Your task to perform on an android device: turn off improve location accuracy Image 0: 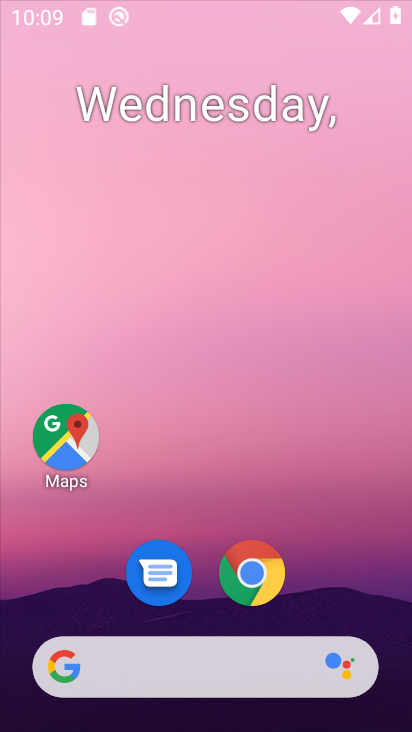
Step 0: click (318, 29)
Your task to perform on an android device: turn off improve location accuracy Image 1: 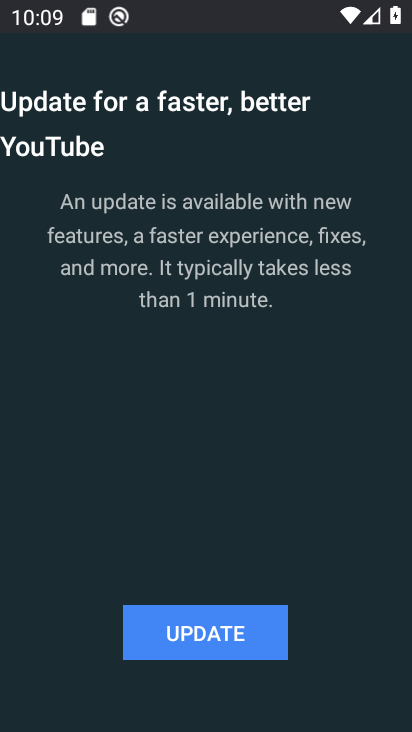
Step 1: press home button
Your task to perform on an android device: turn off improve location accuracy Image 2: 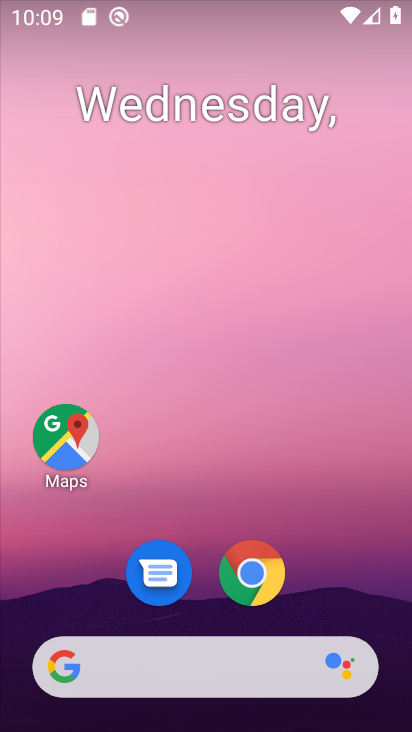
Step 2: drag from (230, 578) to (286, 13)
Your task to perform on an android device: turn off improve location accuracy Image 3: 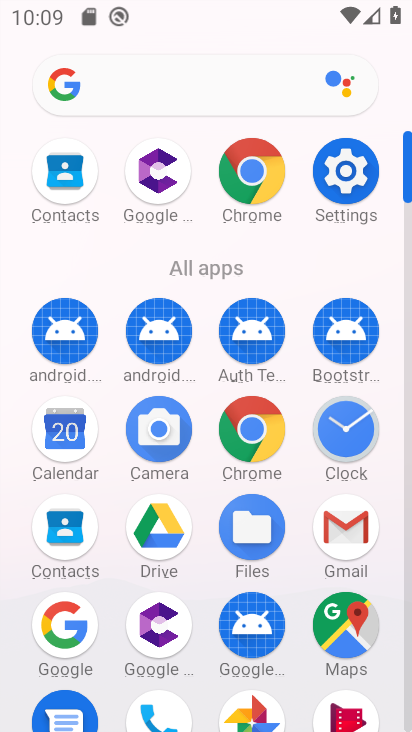
Step 3: click (346, 178)
Your task to perform on an android device: turn off improve location accuracy Image 4: 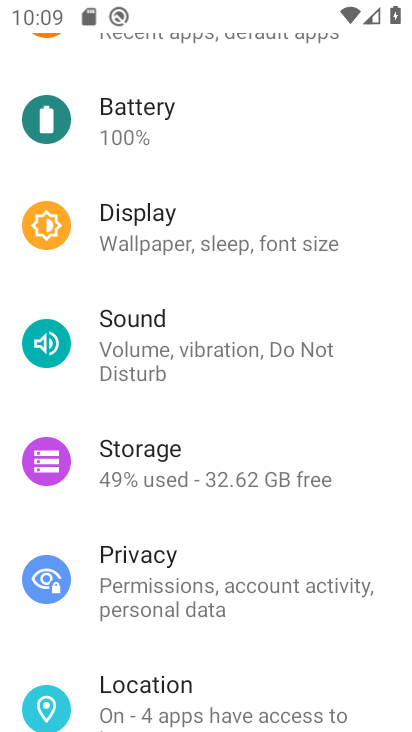
Step 4: click (167, 684)
Your task to perform on an android device: turn off improve location accuracy Image 5: 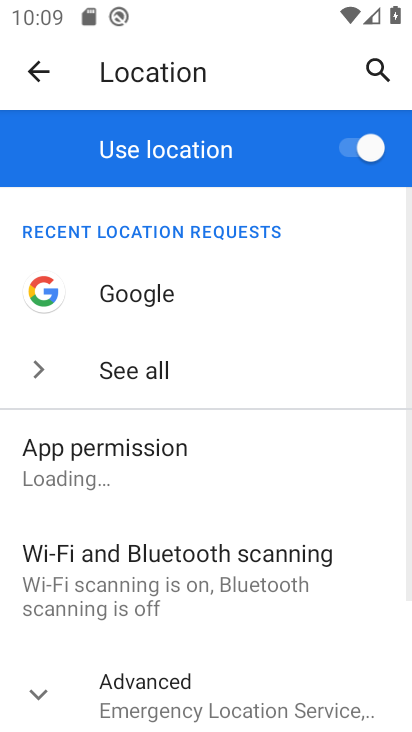
Step 5: drag from (207, 661) to (302, 175)
Your task to perform on an android device: turn off improve location accuracy Image 6: 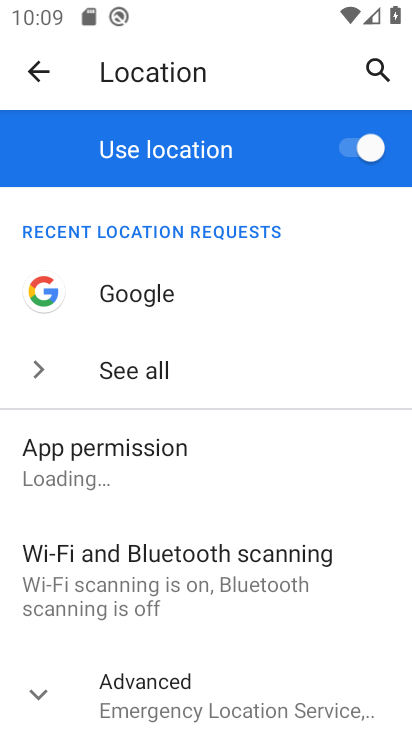
Step 6: click (231, 704)
Your task to perform on an android device: turn off improve location accuracy Image 7: 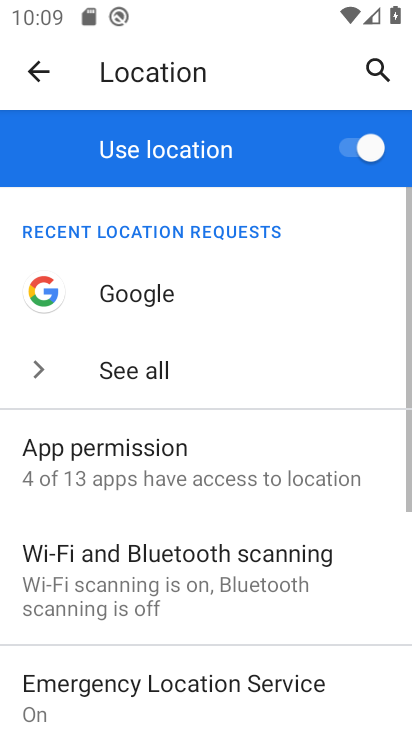
Step 7: drag from (231, 704) to (277, 222)
Your task to perform on an android device: turn off improve location accuracy Image 8: 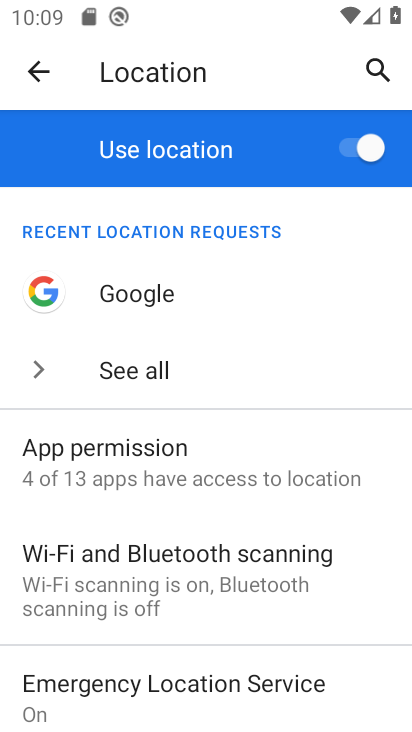
Step 8: drag from (227, 708) to (305, 182)
Your task to perform on an android device: turn off improve location accuracy Image 9: 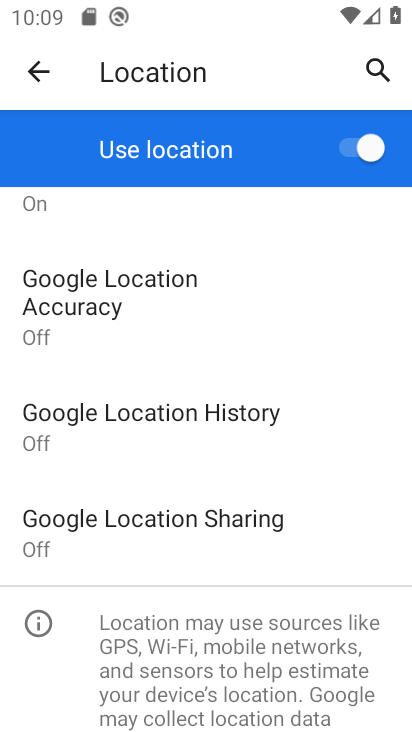
Step 9: click (178, 285)
Your task to perform on an android device: turn off improve location accuracy Image 10: 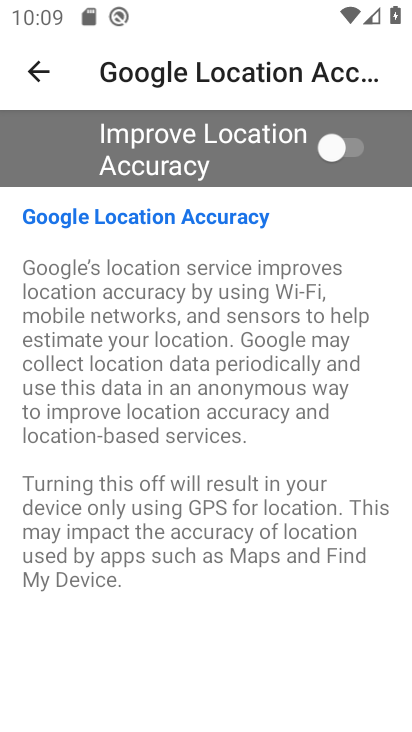
Step 10: task complete